Your task to perform on an android device: set an alarm Image 0: 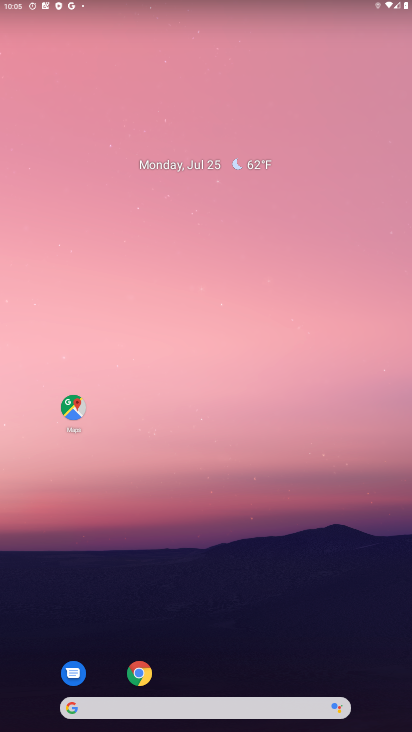
Step 0: drag from (220, 638) to (297, 195)
Your task to perform on an android device: set an alarm Image 1: 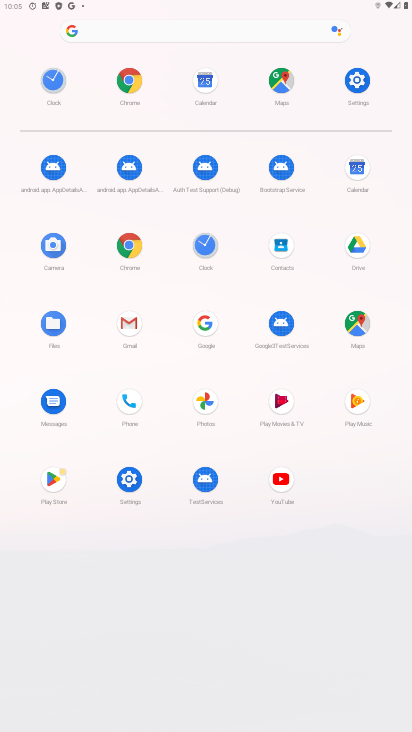
Step 1: click (199, 241)
Your task to perform on an android device: set an alarm Image 2: 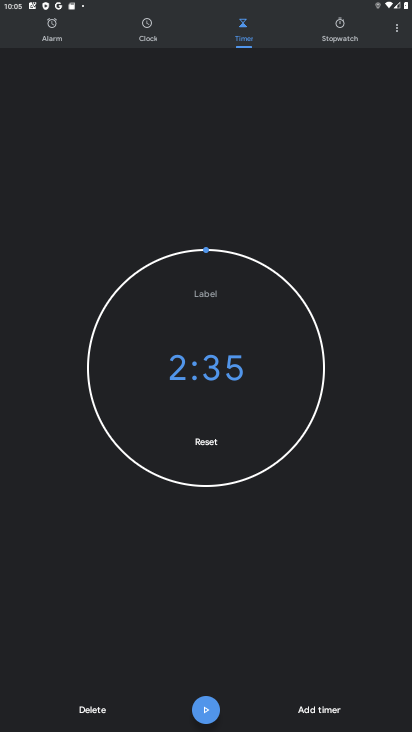
Step 2: click (56, 17)
Your task to perform on an android device: set an alarm Image 3: 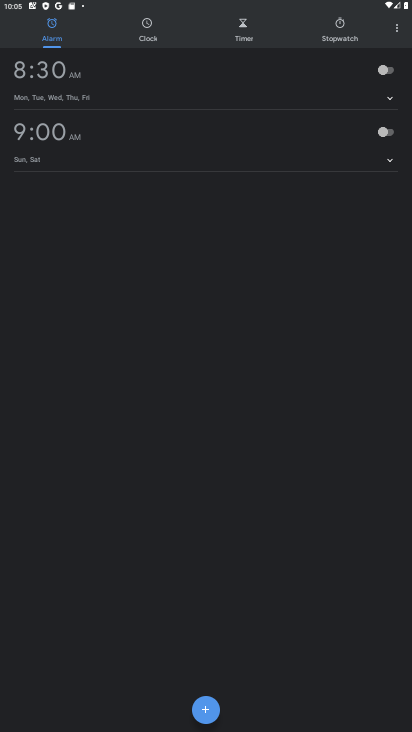
Step 3: drag from (289, 436) to (331, 173)
Your task to perform on an android device: set an alarm Image 4: 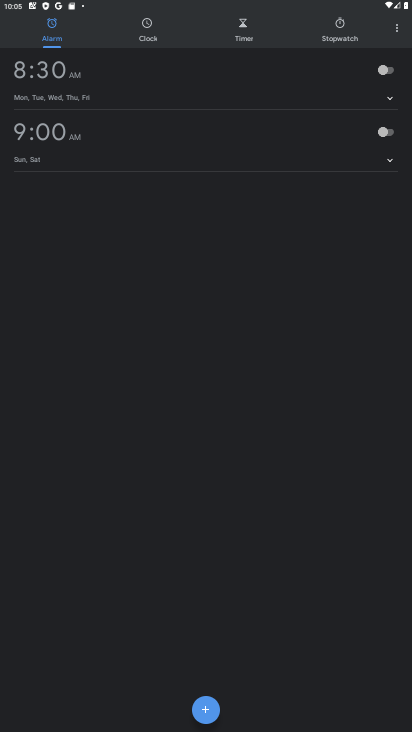
Step 4: click (160, 33)
Your task to perform on an android device: set an alarm Image 5: 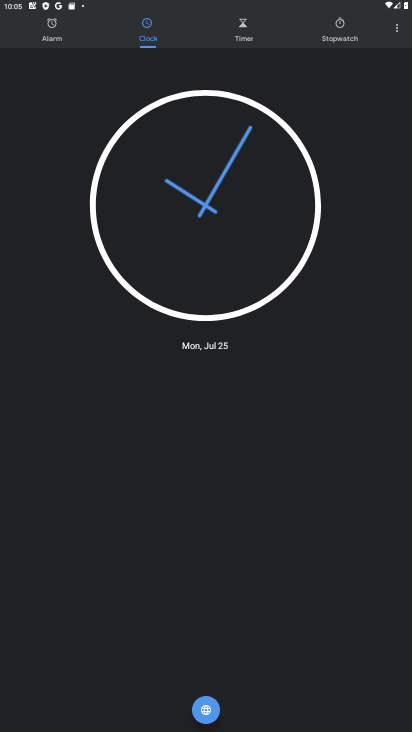
Step 5: click (41, 33)
Your task to perform on an android device: set an alarm Image 6: 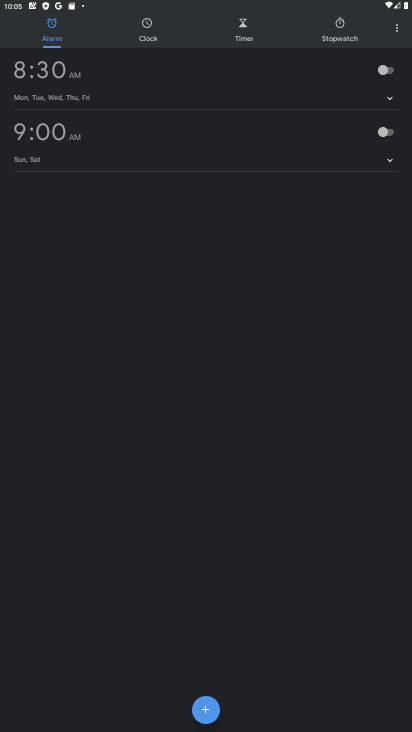
Step 6: click (388, 78)
Your task to perform on an android device: set an alarm Image 7: 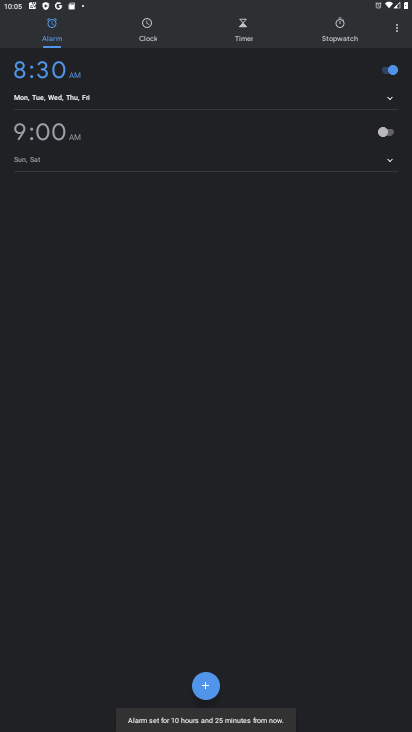
Step 7: task complete